Your task to perform on an android device: Open the web browser Image 0: 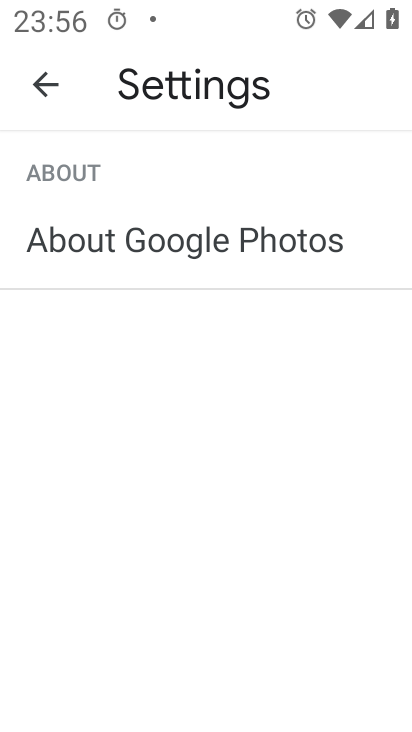
Step 0: press home button
Your task to perform on an android device: Open the web browser Image 1: 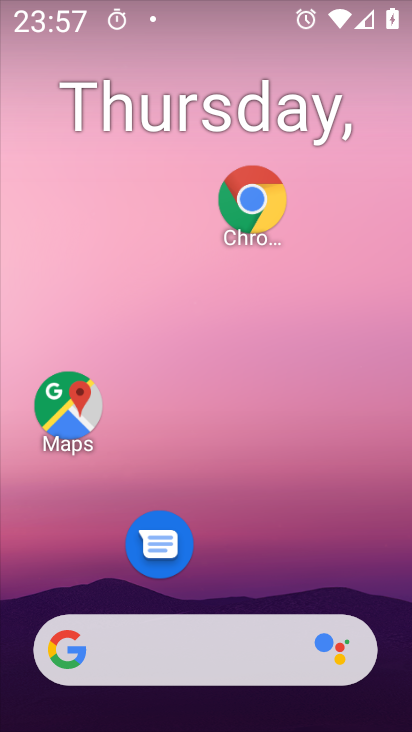
Step 1: click (275, 218)
Your task to perform on an android device: Open the web browser Image 2: 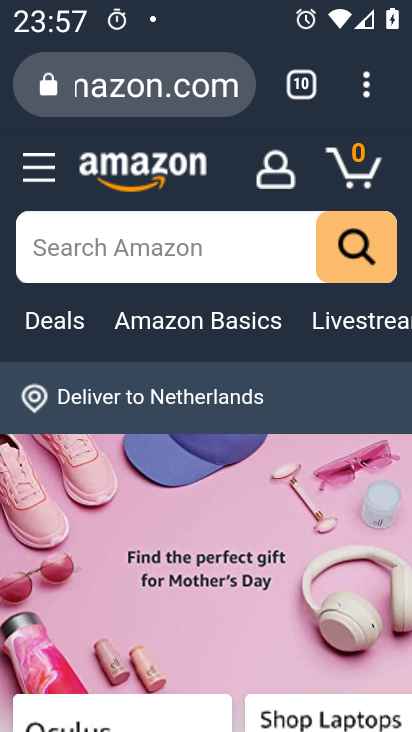
Step 2: task complete